Your task to perform on an android device: snooze an email in the gmail app Image 0: 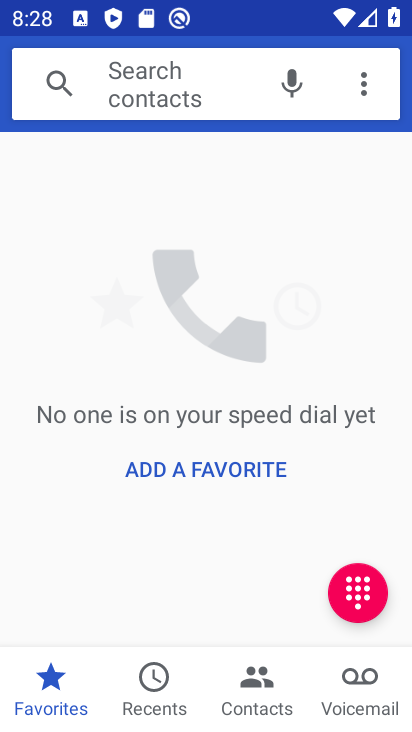
Step 0: press home button
Your task to perform on an android device: snooze an email in the gmail app Image 1: 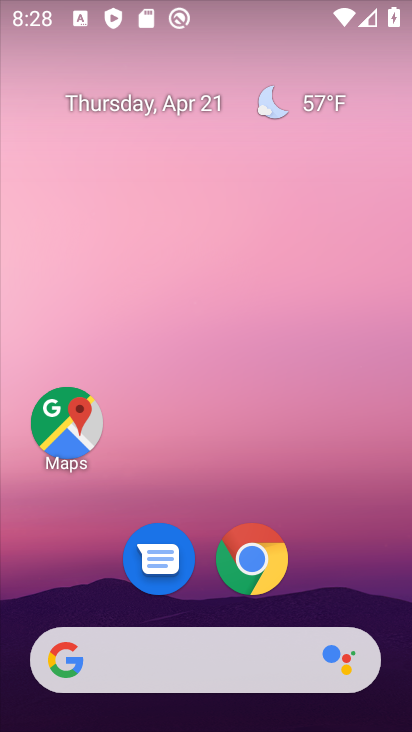
Step 1: drag from (259, 714) to (218, 4)
Your task to perform on an android device: snooze an email in the gmail app Image 2: 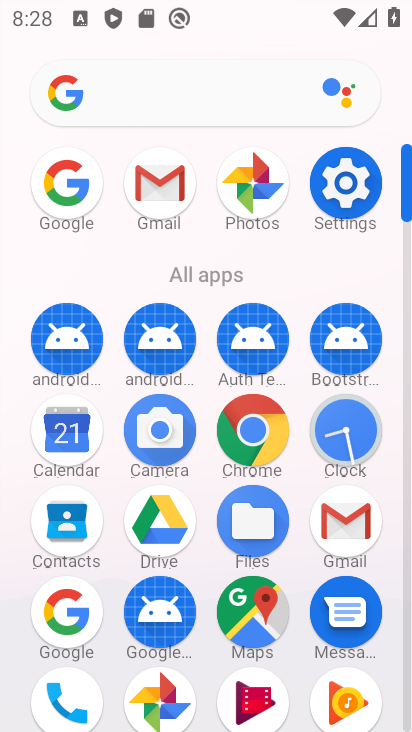
Step 2: click (154, 166)
Your task to perform on an android device: snooze an email in the gmail app Image 3: 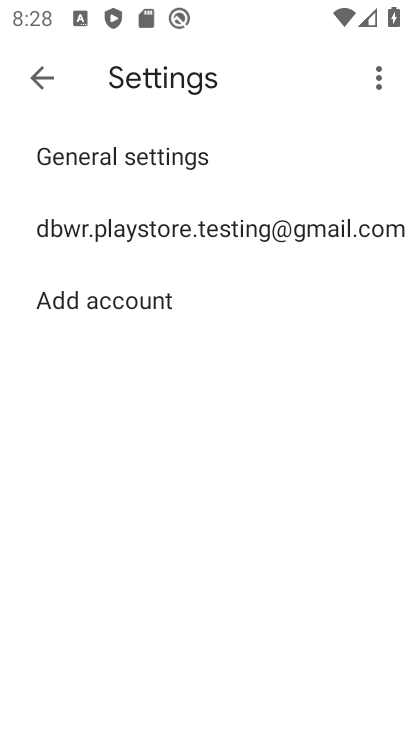
Step 3: click (42, 75)
Your task to perform on an android device: snooze an email in the gmail app Image 4: 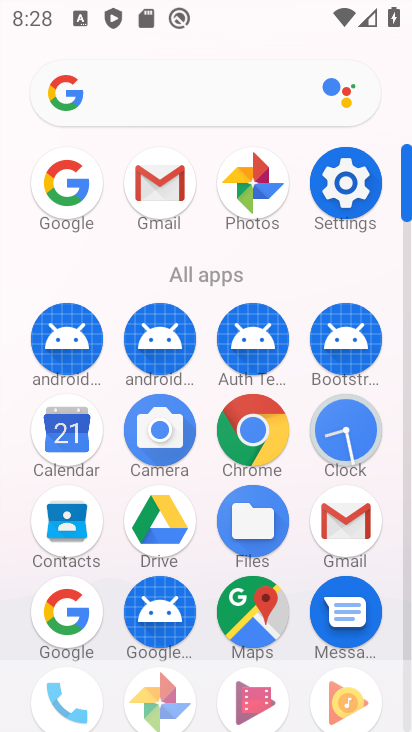
Step 4: click (158, 173)
Your task to perform on an android device: snooze an email in the gmail app Image 5: 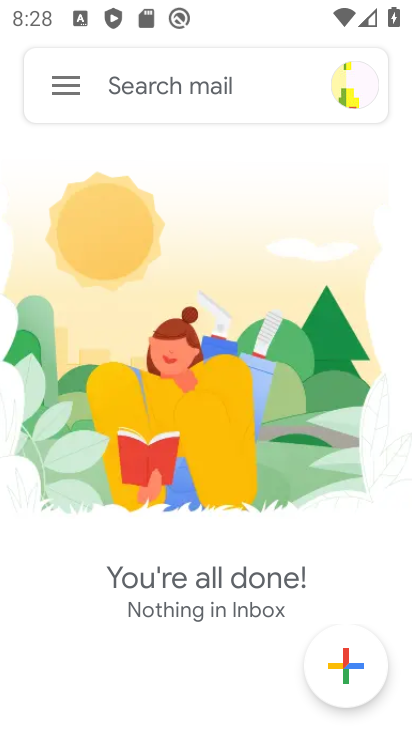
Step 5: click (65, 88)
Your task to perform on an android device: snooze an email in the gmail app Image 6: 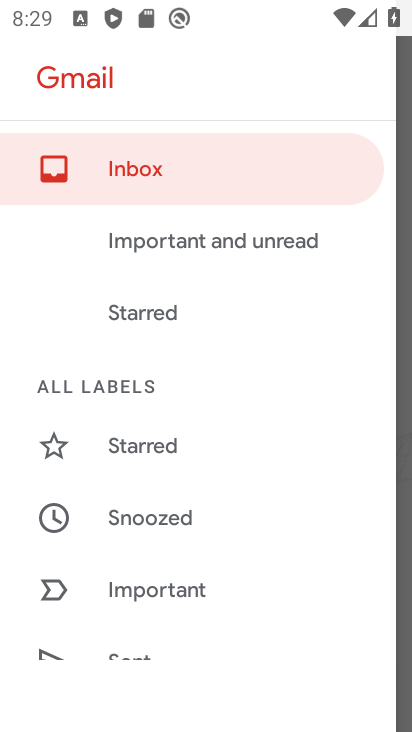
Step 6: drag from (292, 528) to (292, 74)
Your task to perform on an android device: snooze an email in the gmail app Image 7: 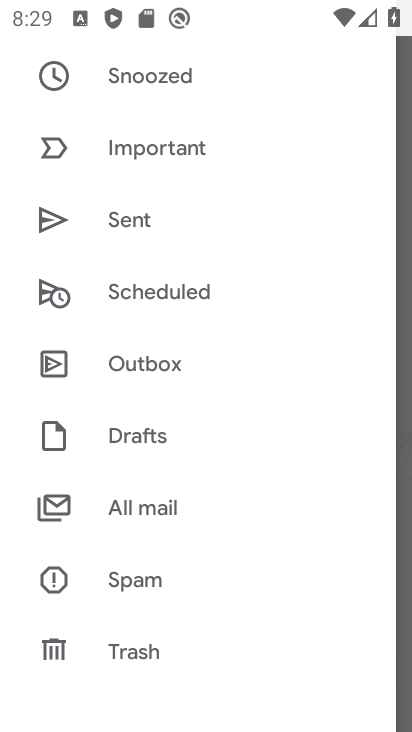
Step 7: click (186, 513)
Your task to perform on an android device: snooze an email in the gmail app Image 8: 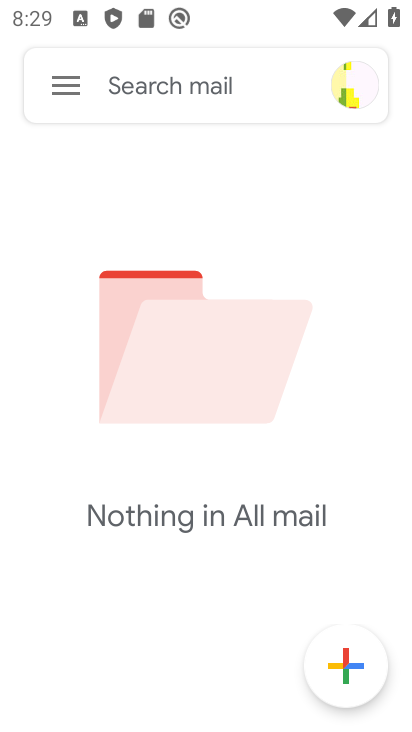
Step 8: task complete